Your task to perform on an android device: What is the news today? Image 0: 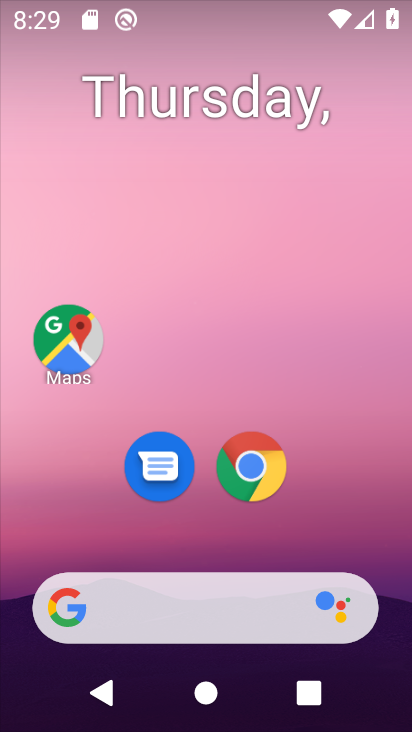
Step 0: drag from (0, 246) to (366, 198)
Your task to perform on an android device: What is the news today? Image 1: 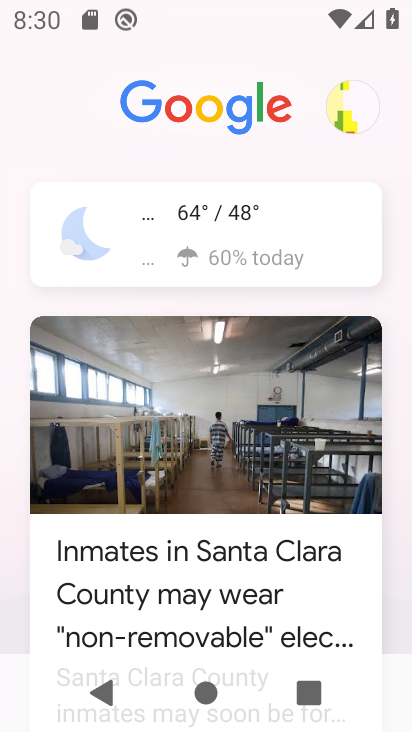
Step 1: task complete